Your task to perform on an android device: Open eBay Image 0: 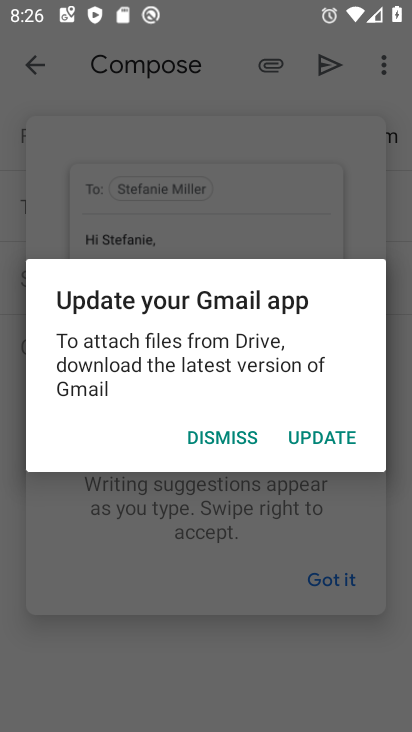
Step 0: press home button
Your task to perform on an android device: Open eBay Image 1: 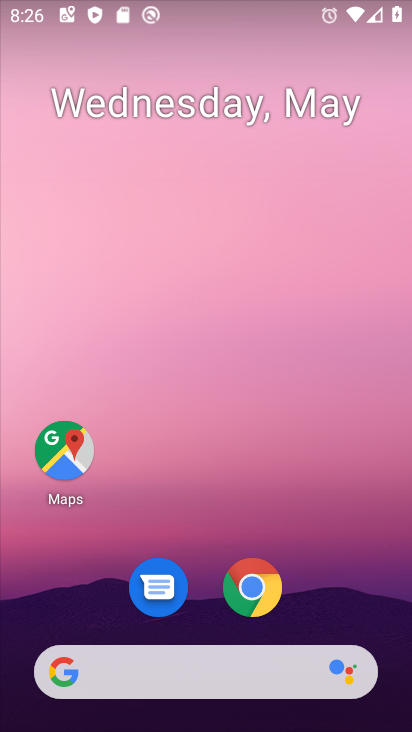
Step 1: click (278, 606)
Your task to perform on an android device: Open eBay Image 2: 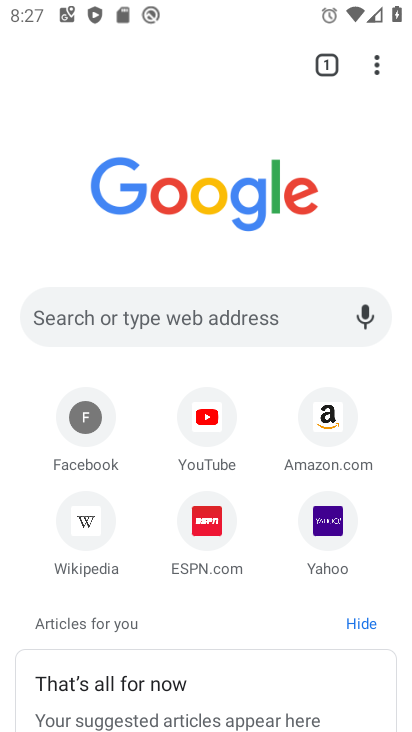
Step 2: click (211, 314)
Your task to perform on an android device: Open eBay Image 3: 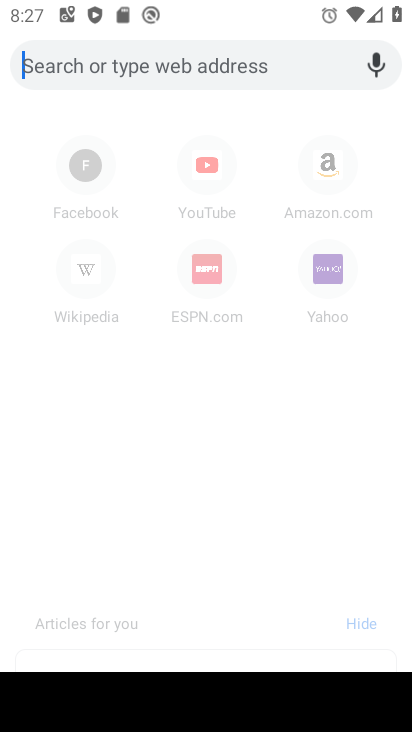
Step 3: type "eBay"
Your task to perform on an android device: Open eBay Image 4: 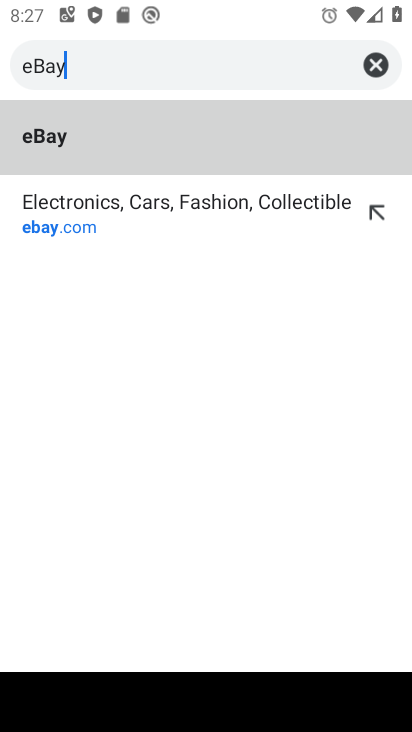
Step 4: click (74, 119)
Your task to perform on an android device: Open eBay Image 5: 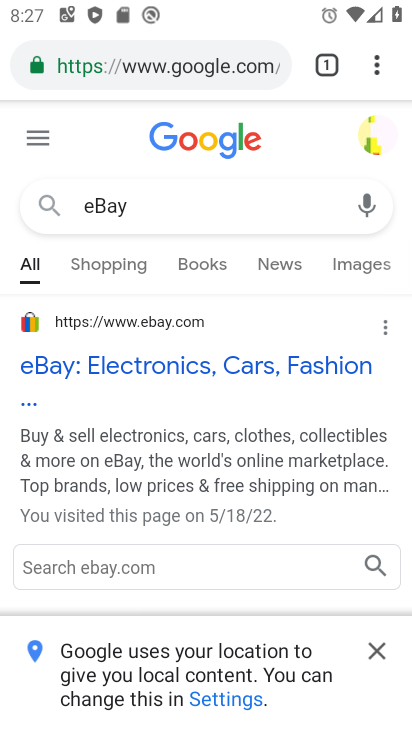
Step 5: task complete